Your task to perform on an android device: turn off data saver in the chrome app Image 0: 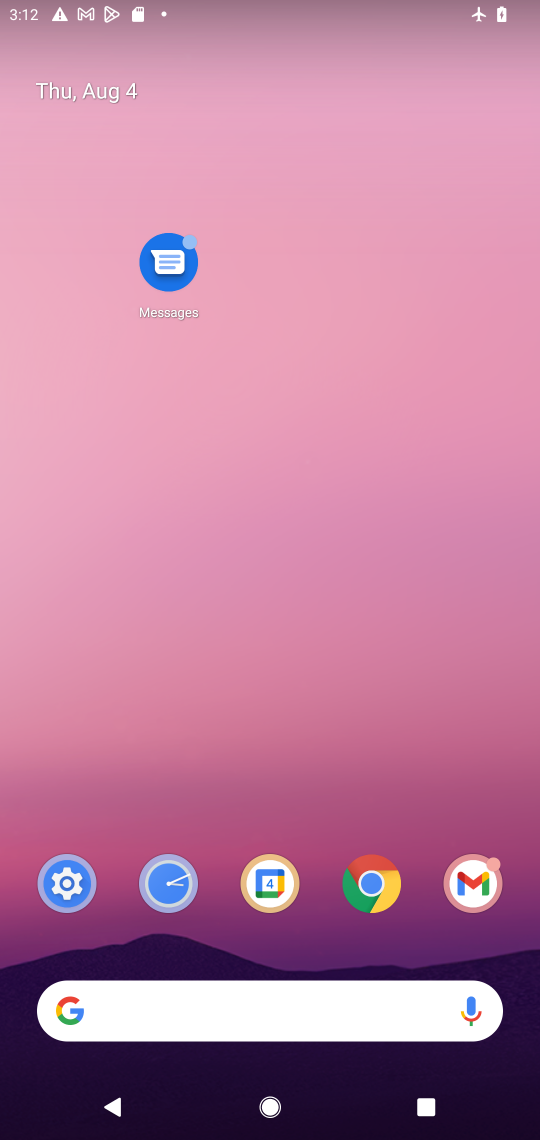
Step 0: click (367, 888)
Your task to perform on an android device: turn off data saver in the chrome app Image 1: 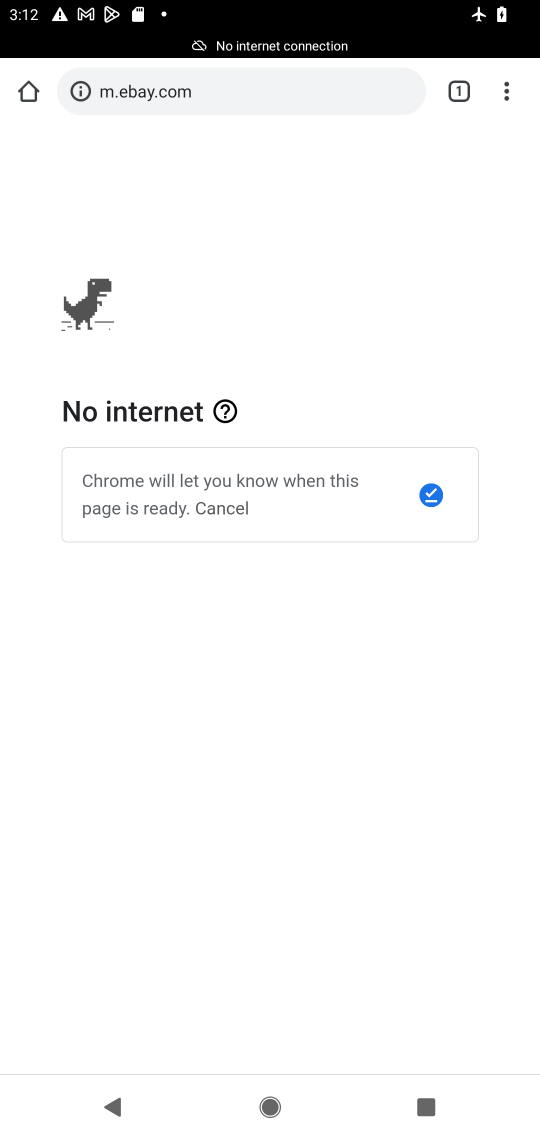
Step 1: click (501, 97)
Your task to perform on an android device: turn off data saver in the chrome app Image 2: 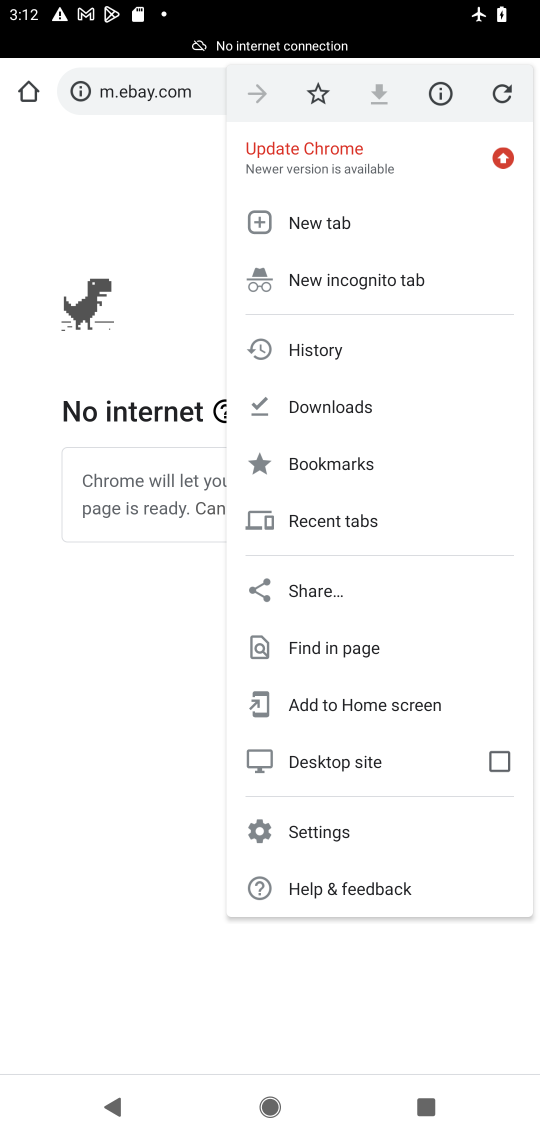
Step 2: click (323, 828)
Your task to perform on an android device: turn off data saver in the chrome app Image 3: 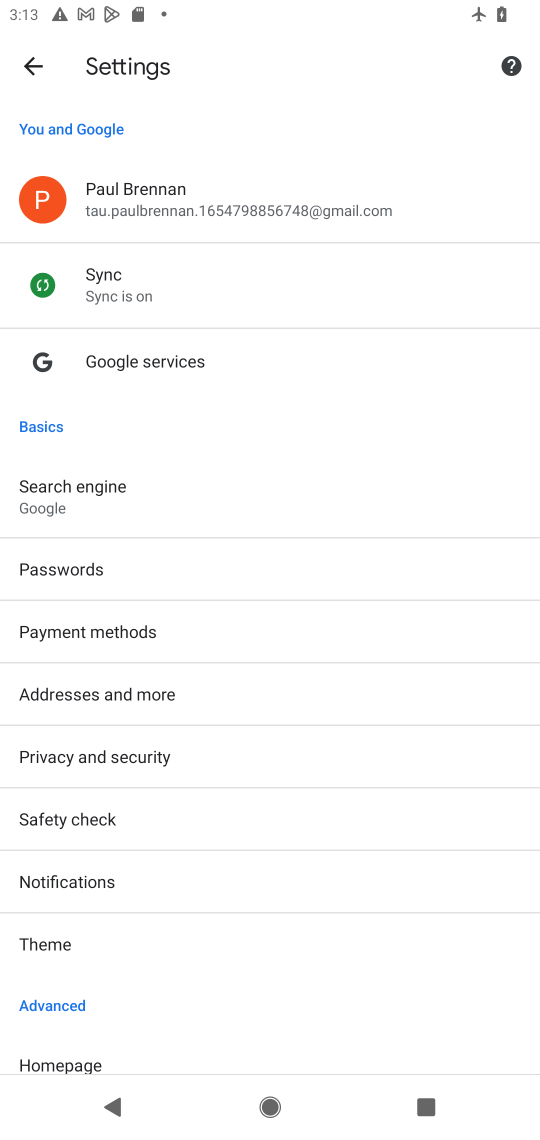
Step 3: drag from (110, 1042) to (99, 737)
Your task to perform on an android device: turn off data saver in the chrome app Image 4: 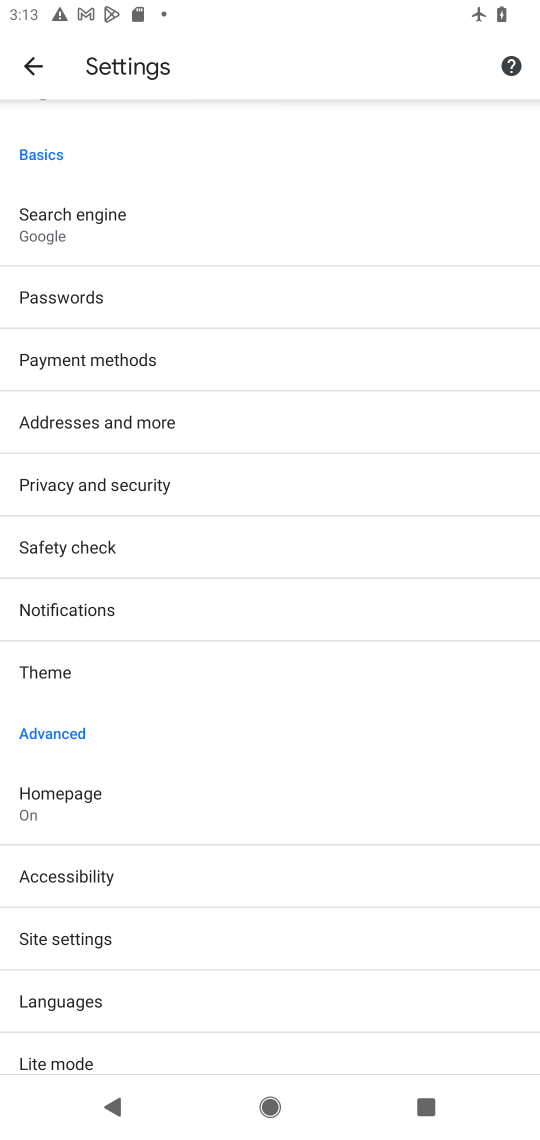
Step 4: click (102, 1053)
Your task to perform on an android device: turn off data saver in the chrome app Image 5: 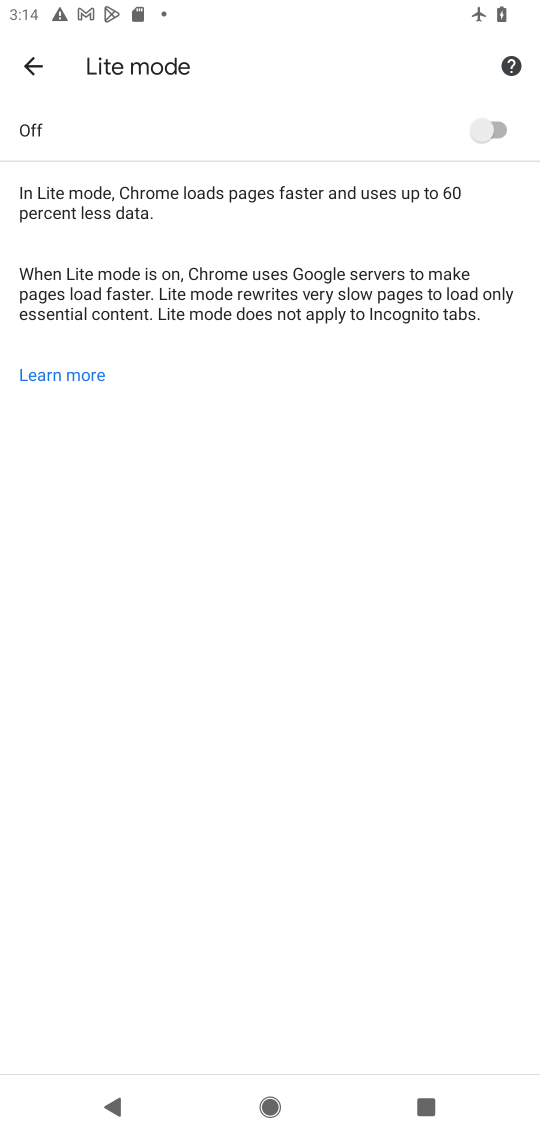
Step 5: task complete